Your task to perform on an android device: Open the calendar and show me this week's events? Image 0: 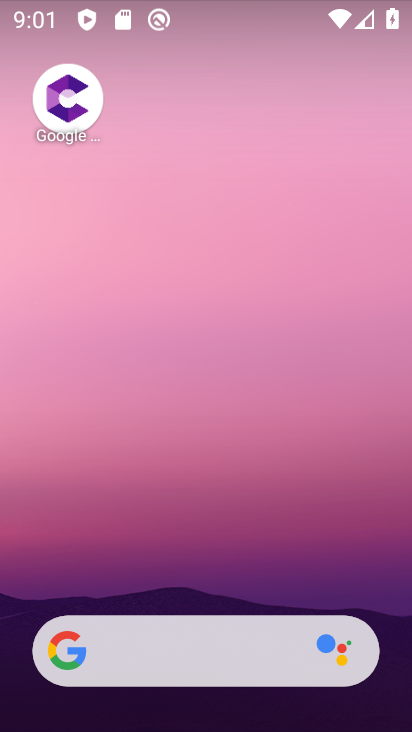
Step 0: drag from (211, 700) to (164, 99)
Your task to perform on an android device: Open the calendar and show me this week's events? Image 1: 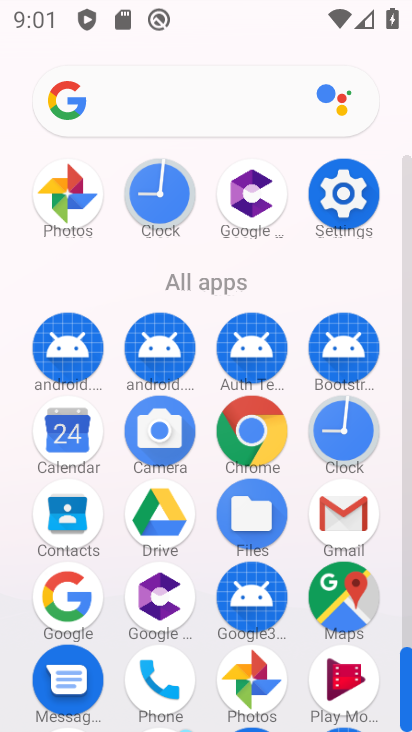
Step 1: click (65, 435)
Your task to perform on an android device: Open the calendar and show me this week's events? Image 2: 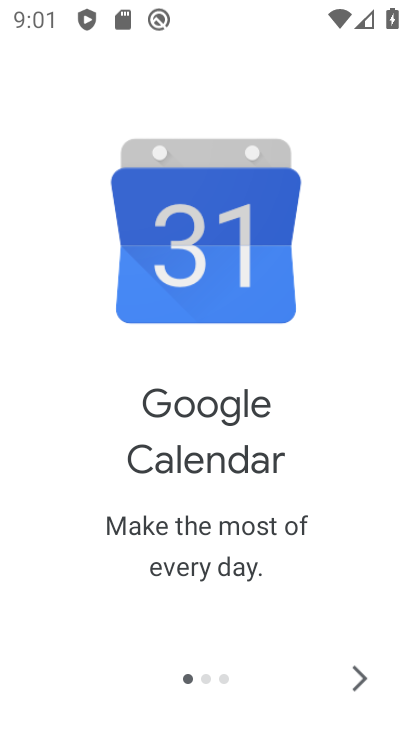
Step 2: click (362, 677)
Your task to perform on an android device: Open the calendar and show me this week's events? Image 3: 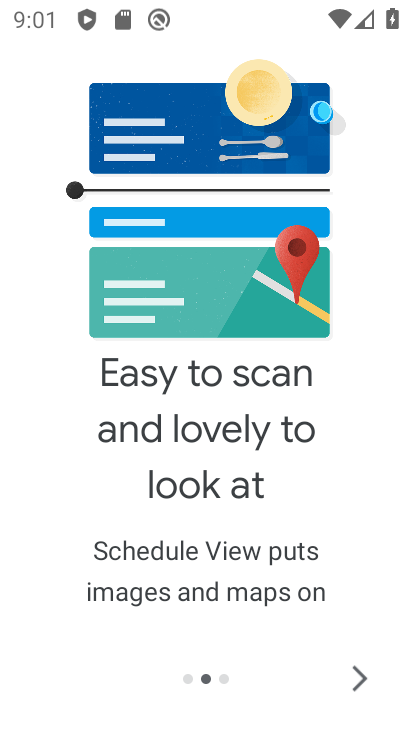
Step 3: click (359, 672)
Your task to perform on an android device: Open the calendar and show me this week's events? Image 4: 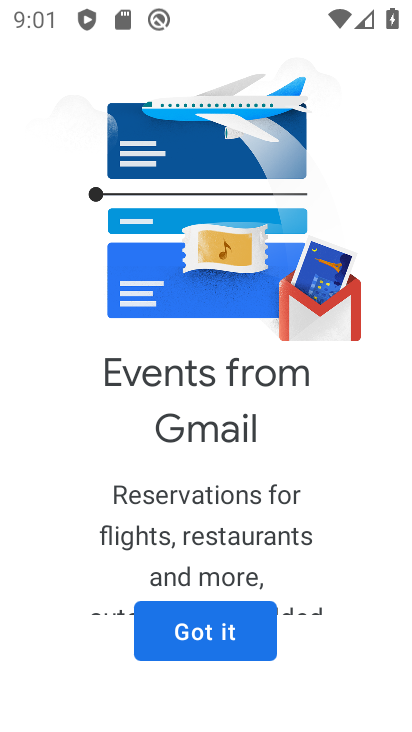
Step 4: click (225, 624)
Your task to perform on an android device: Open the calendar and show me this week's events? Image 5: 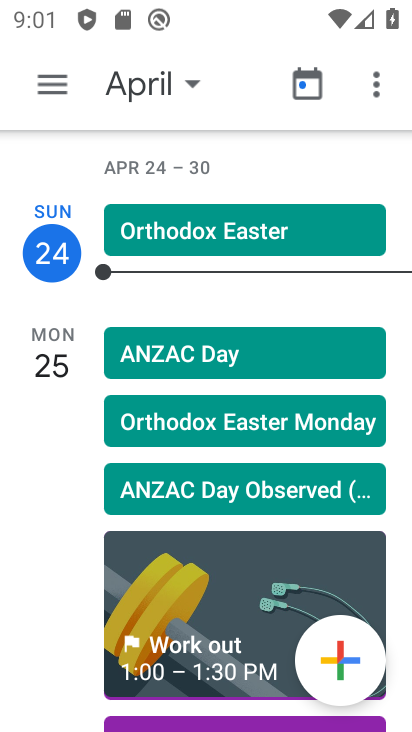
Step 5: click (48, 86)
Your task to perform on an android device: Open the calendar and show me this week's events? Image 6: 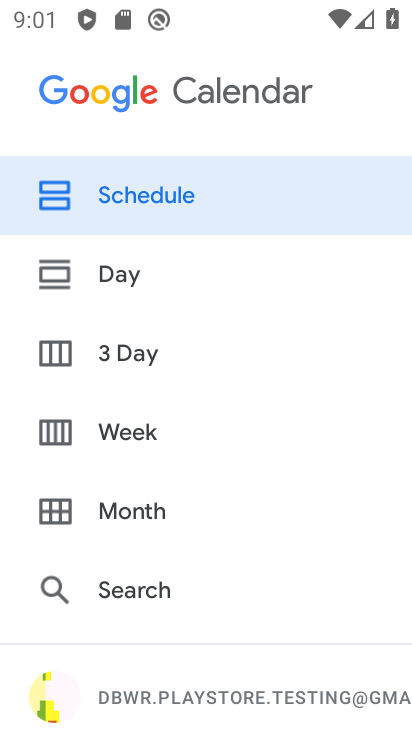
Step 6: drag from (160, 680) to (197, 241)
Your task to perform on an android device: Open the calendar and show me this week's events? Image 7: 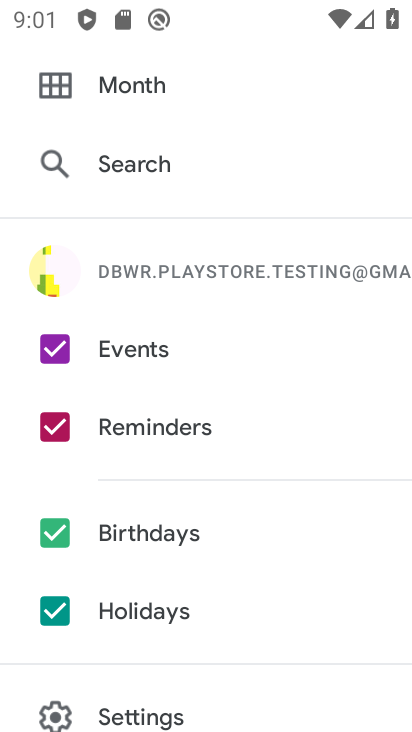
Step 7: click (54, 611)
Your task to perform on an android device: Open the calendar and show me this week's events? Image 8: 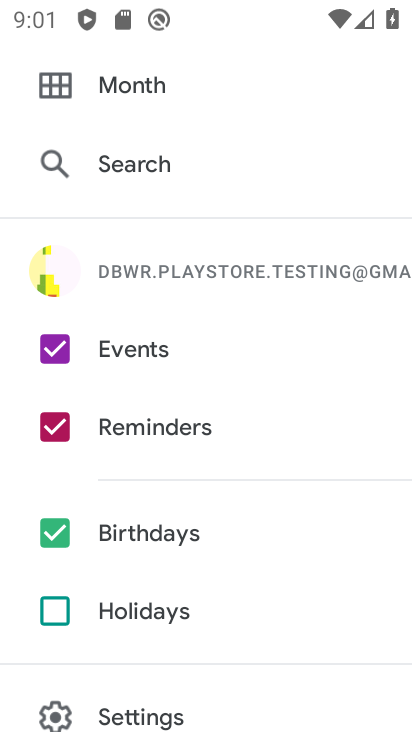
Step 8: click (58, 524)
Your task to perform on an android device: Open the calendar and show me this week's events? Image 9: 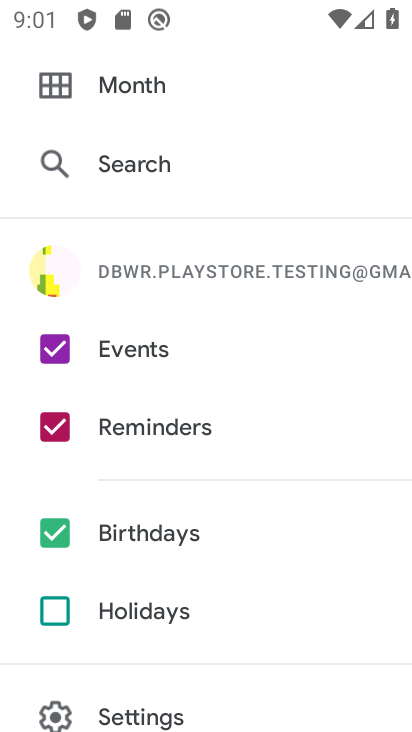
Step 9: click (57, 536)
Your task to perform on an android device: Open the calendar and show me this week's events? Image 10: 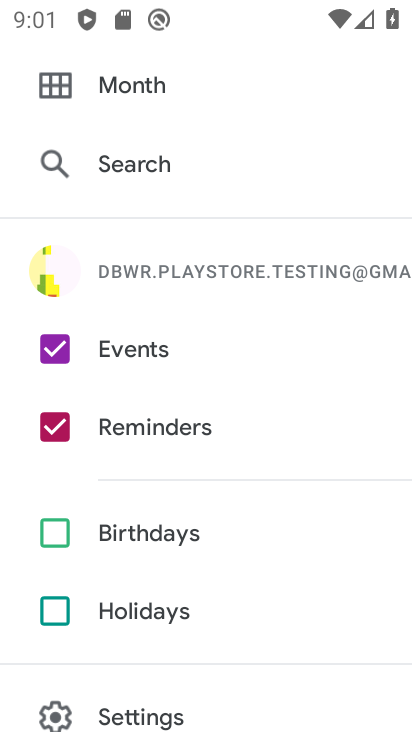
Step 10: click (46, 414)
Your task to perform on an android device: Open the calendar and show me this week's events? Image 11: 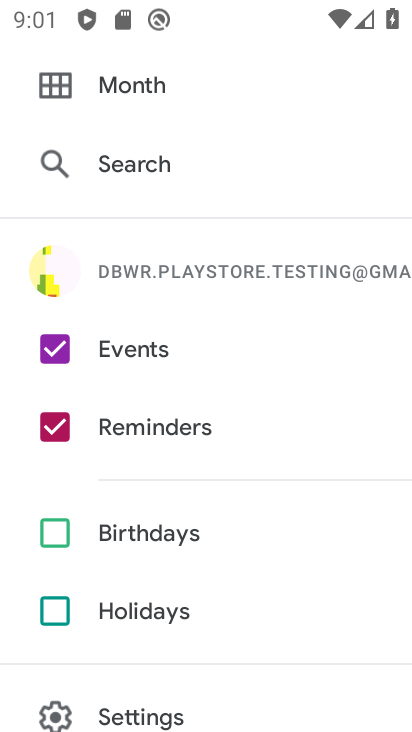
Step 11: click (55, 427)
Your task to perform on an android device: Open the calendar and show me this week's events? Image 12: 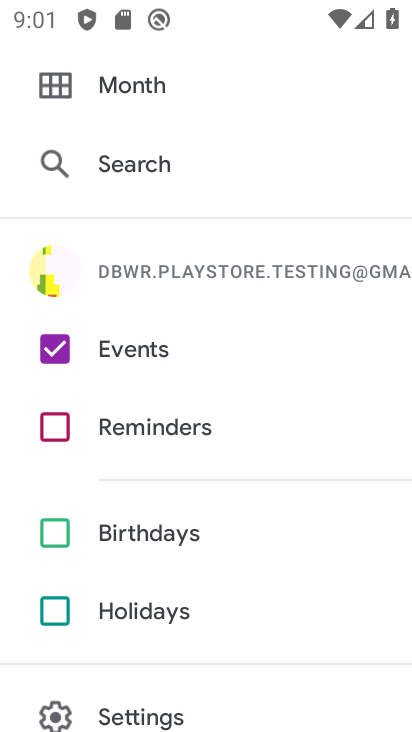
Step 12: drag from (180, 177) to (169, 478)
Your task to perform on an android device: Open the calendar and show me this week's events? Image 13: 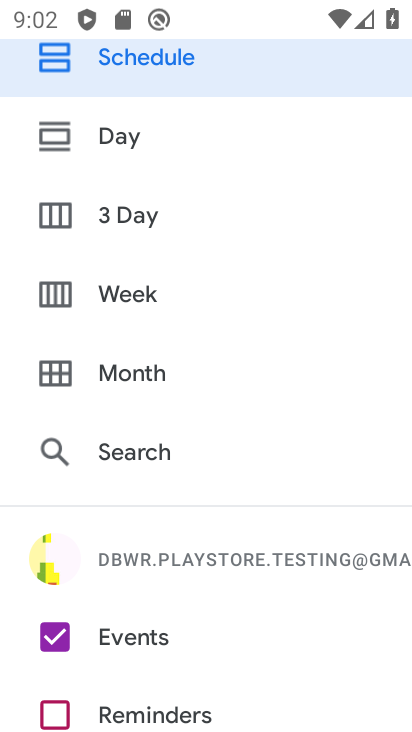
Step 13: click (141, 291)
Your task to perform on an android device: Open the calendar and show me this week's events? Image 14: 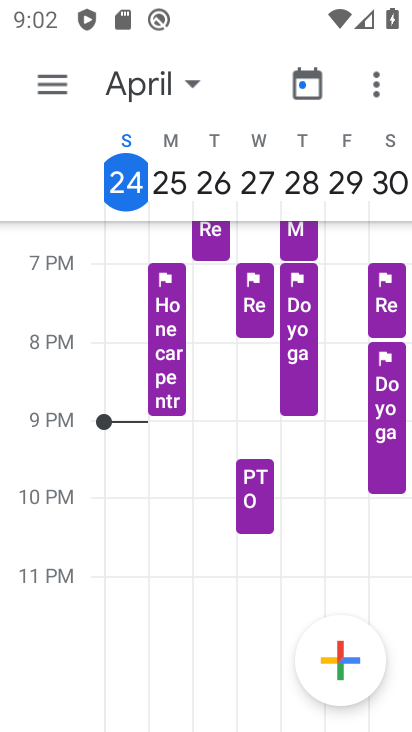
Step 14: task complete